Your task to perform on an android device: Go to battery settings Image 0: 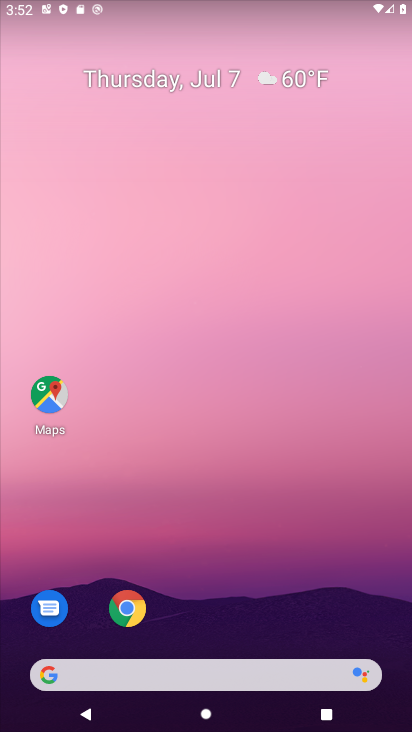
Step 0: drag from (214, 666) to (237, 16)
Your task to perform on an android device: Go to battery settings Image 1: 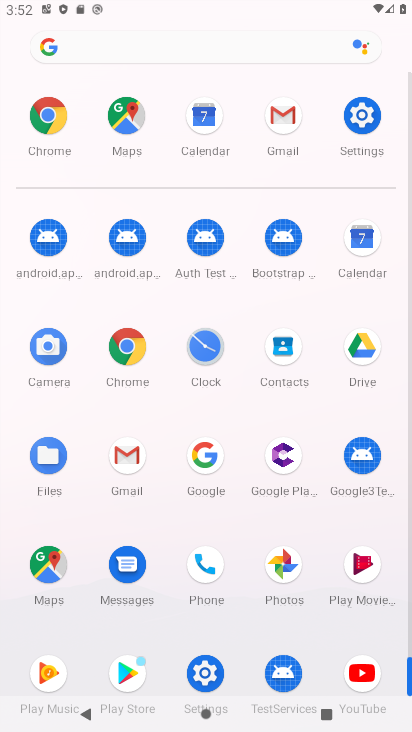
Step 1: click (358, 124)
Your task to perform on an android device: Go to battery settings Image 2: 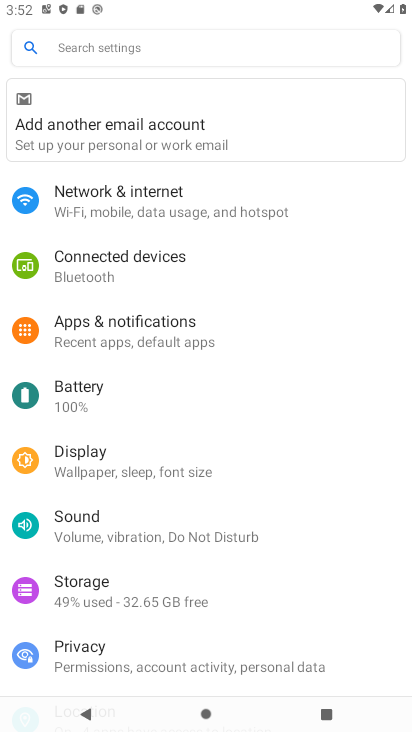
Step 2: click (98, 394)
Your task to perform on an android device: Go to battery settings Image 3: 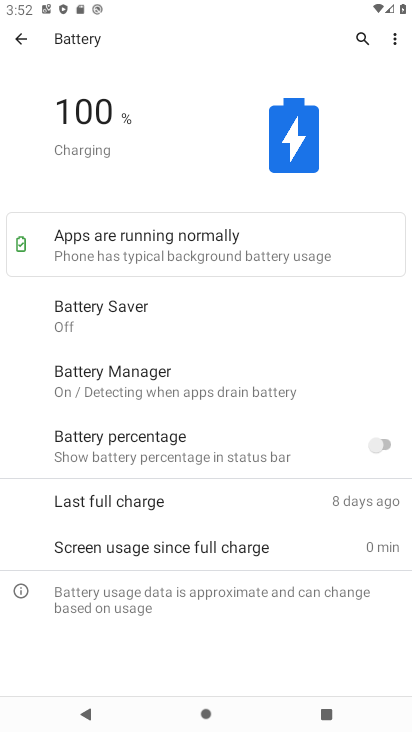
Step 3: task complete